Your task to perform on an android device: Open the stopwatch Image 0: 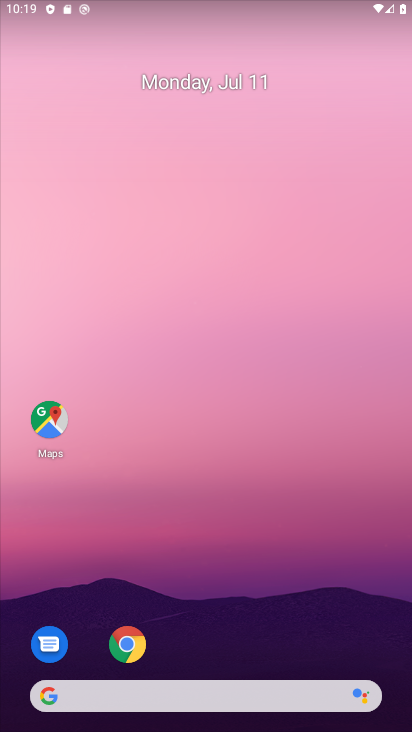
Step 0: click (218, 224)
Your task to perform on an android device: Open the stopwatch Image 1: 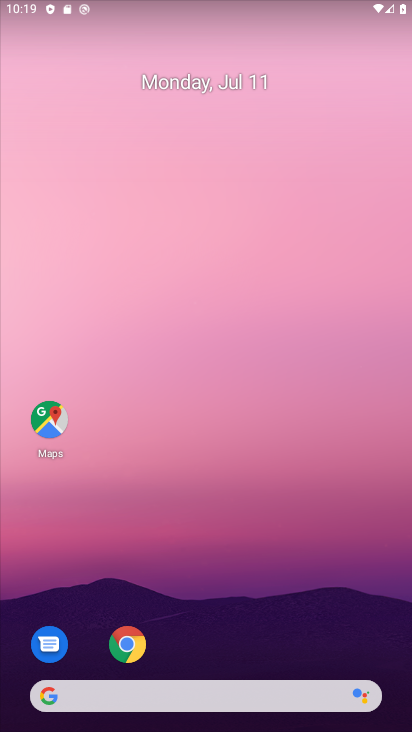
Step 1: click (184, 94)
Your task to perform on an android device: Open the stopwatch Image 2: 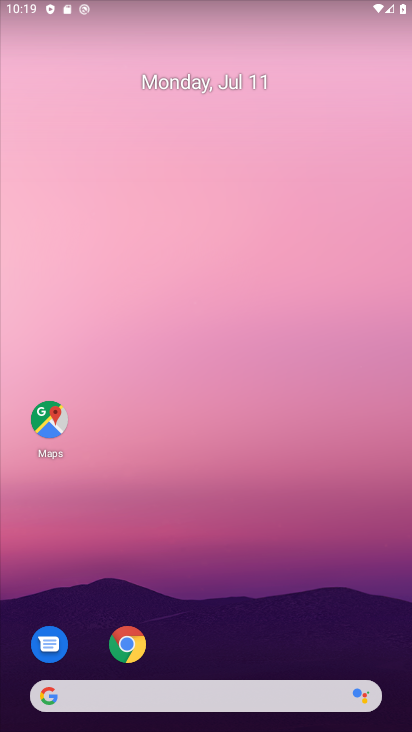
Step 2: drag from (215, 464) to (165, 117)
Your task to perform on an android device: Open the stopwatch Image 3: 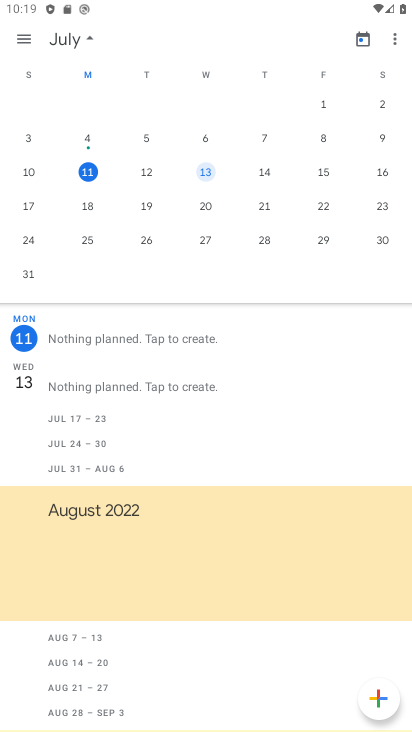
Step 3: drag from (258, 423) to (258, 16)
Your task to perform on an android device: Open the stopwatch Image 4: 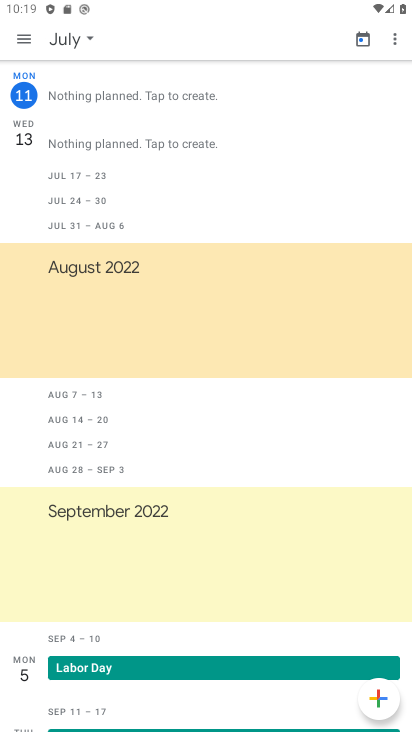
Step 4: press back button
Your task to perform on an android device: Open the stopwatch Image 5: 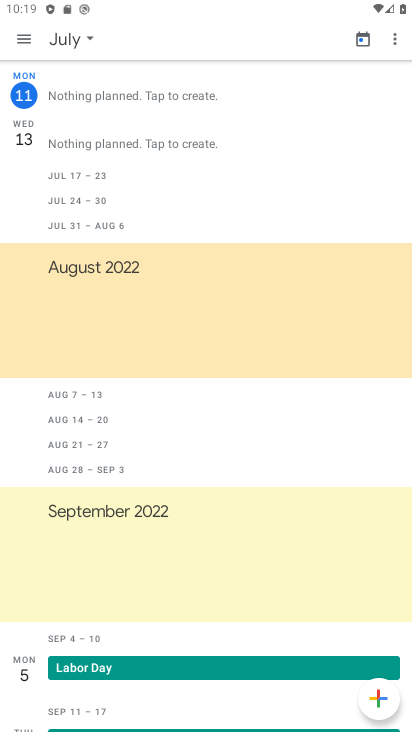
Step 5: press back button
Your task to perform on an android device: Open the stopwatch Image 6: 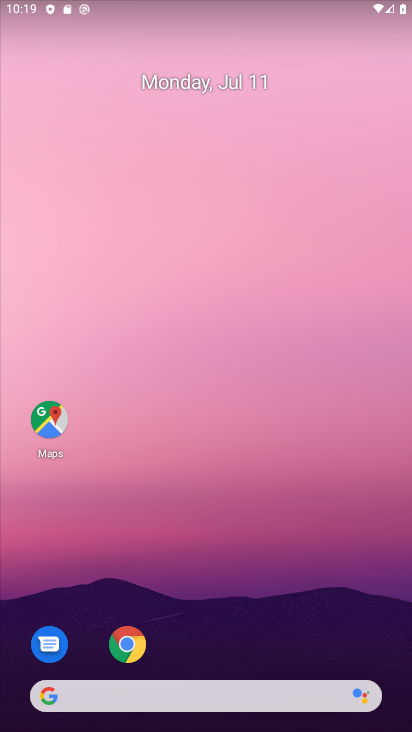
Step 6: drag from (228, 614) to (170, 199)
Your task to perform on an android device: Open the stopwatch Image 7: 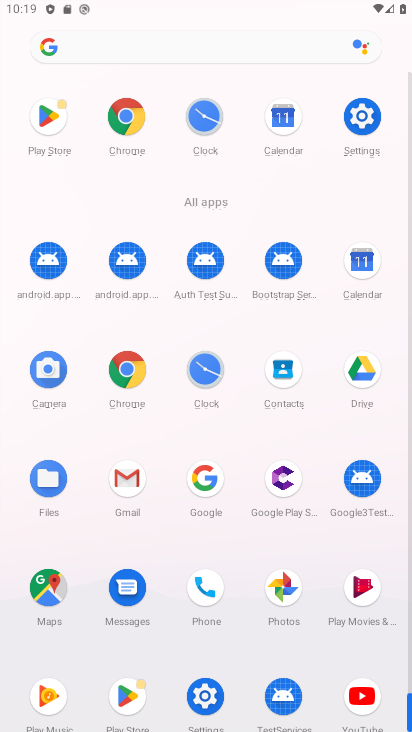
Step 7: click (210, 358)
Your task to perform on an android device: Open the stopwatch Image 8: 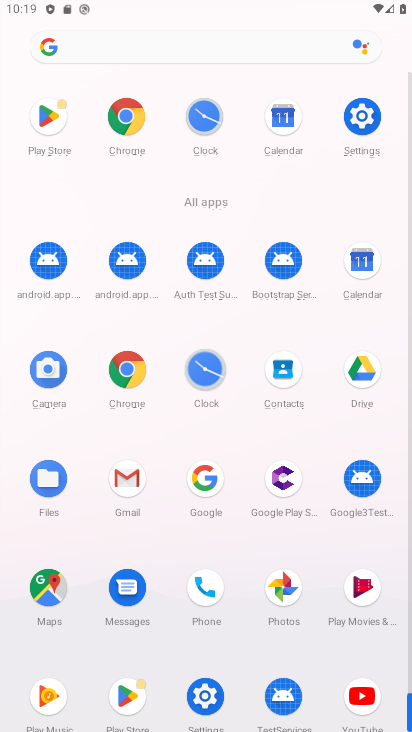
Step 8: click (209, 359)
Your task to perform on an android device: Open the stopwatch Image 9: 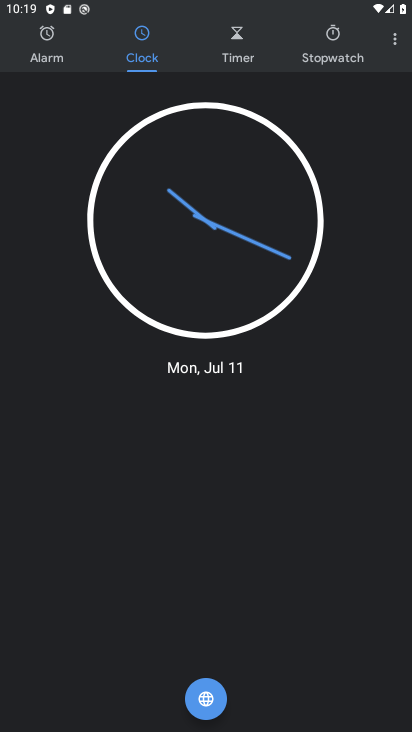
Step 9: click (202, 359)
Your task to perform on an android device: Open the stopwatch Image 10: 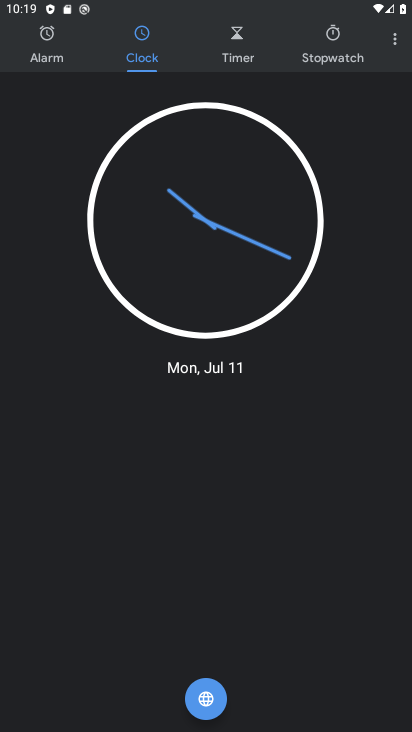
Step 10: click (356, 64)
Your task to perform on an android device: Open the stopwatch Image 11: 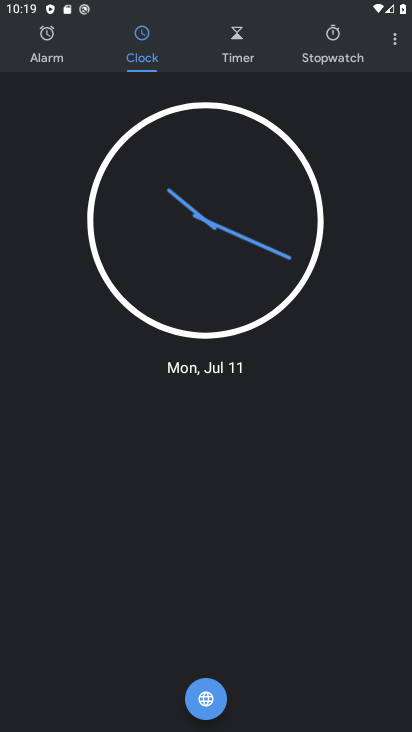
Step 11: click (341, 49)
Your task to perform on an android device: Open the stopwatch Image 12: 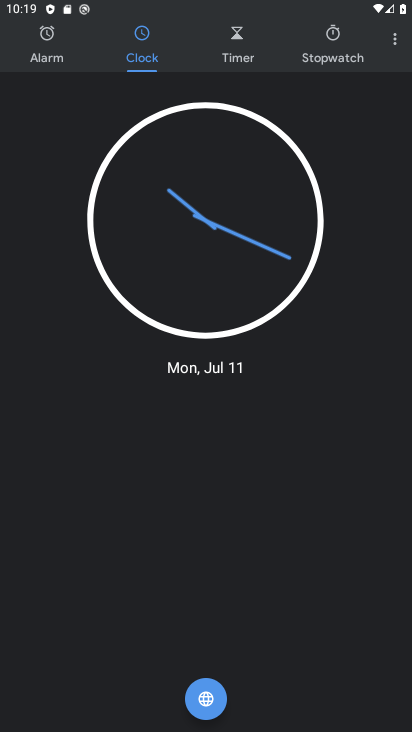
Step 12: click (341, 49)
Your task to perform on an android device: Open the stopwatch Image 13: 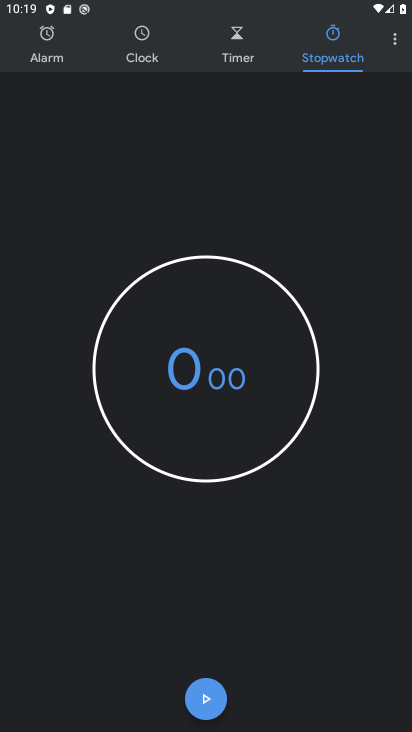
Step 13: task complete